Your task to perform on an android device: What's the weather today? Image 0: 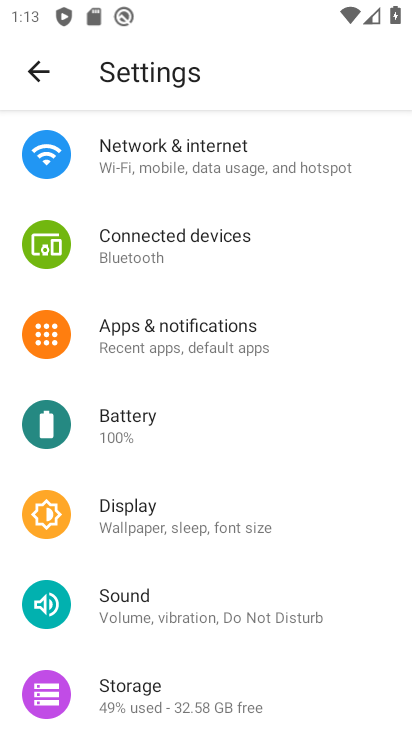
Step 0: press back button
Your task to perform on an android device: What's the weather today? Image 1: 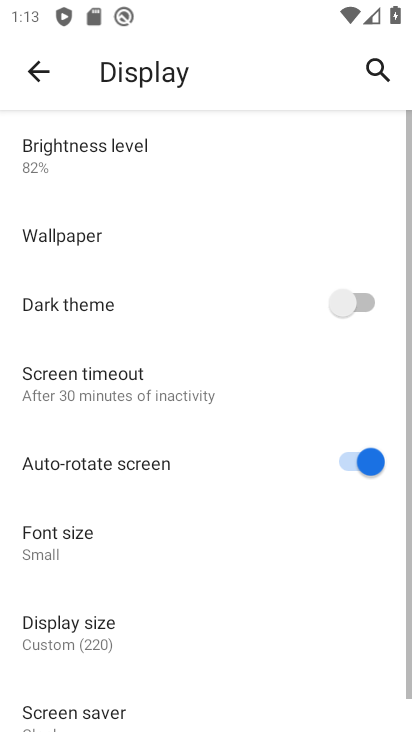
Step 1: press back button
Your task to perform on an android device: What's the weather today? Image 2: 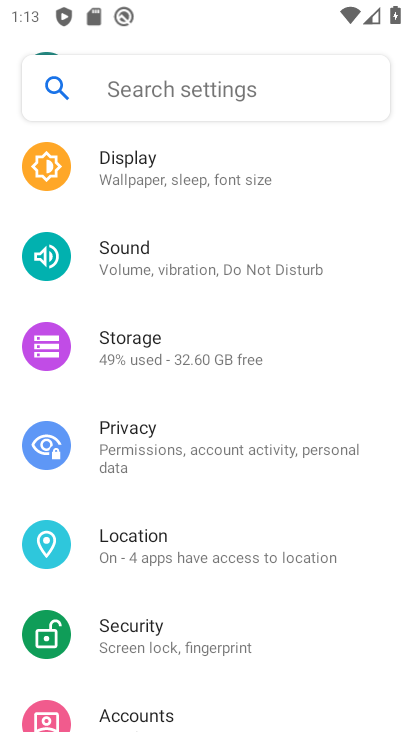
Step 2: press back button
Your task to perform on an android device: What's the weather today? Image 3: 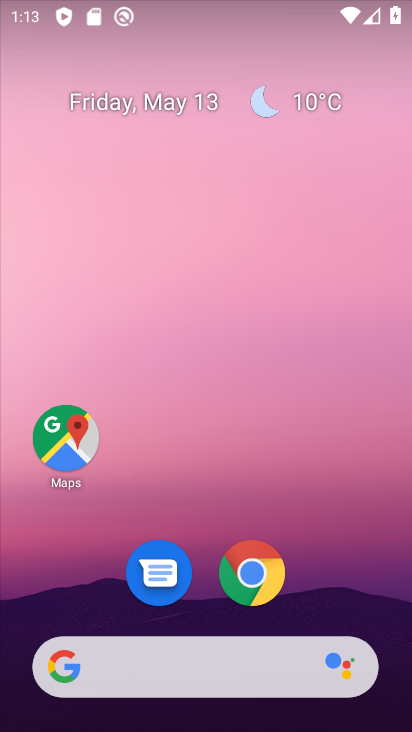
Step 3: drag from (355, 585) to (283, 86)
Your task to perform on an android device: What's the weather today? Image 4: 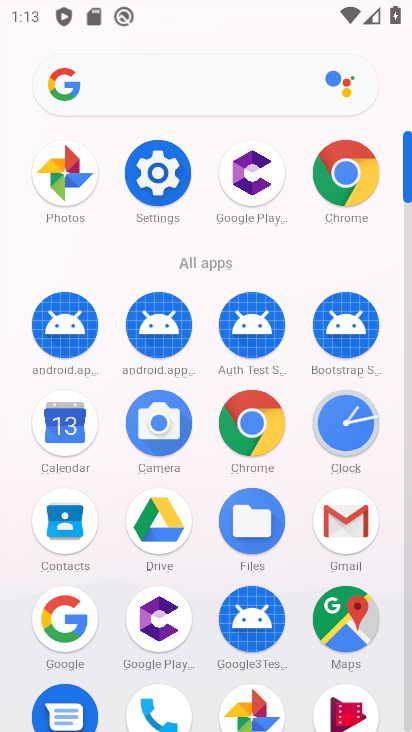
Step 4: click (348, 168)
Your task to perform on an android device: What's the weather today? Image 5: 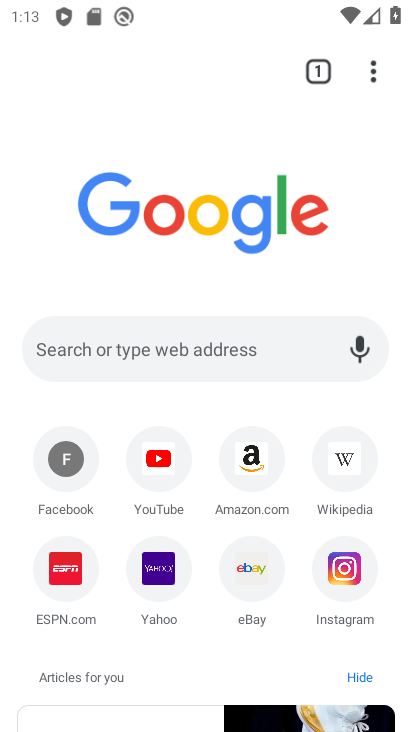
Step 5: click (178, 338)
Your task to perform on an android device: What's the weather today? Image 6: 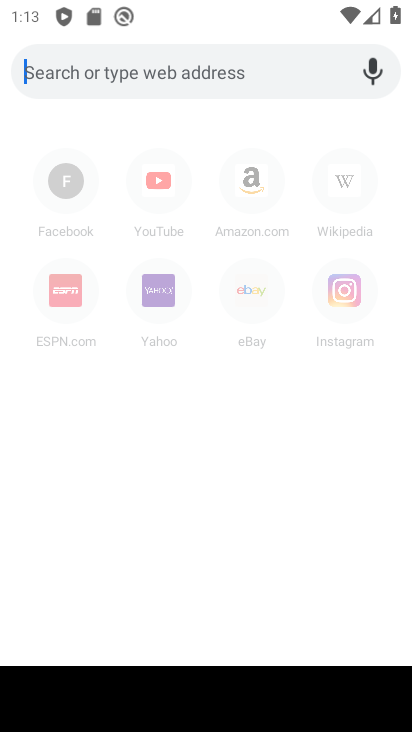
Step 6: type "What's the weather today?"
Your task to perform on an android device: What's the weather today? Image 7: 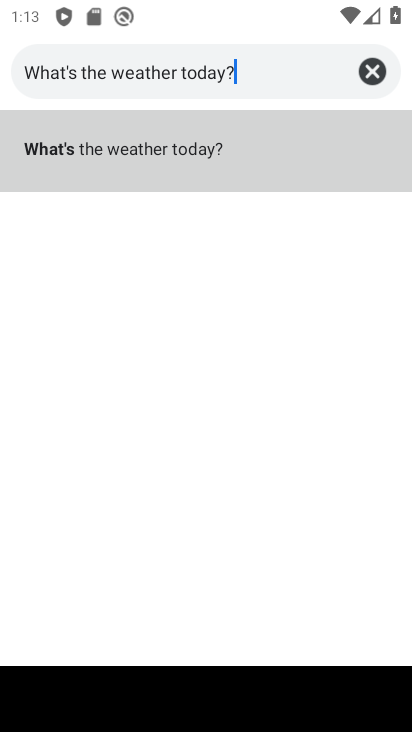
Step 7: type ""
Your task to perform on an android device: What's the weather today? Image 8: 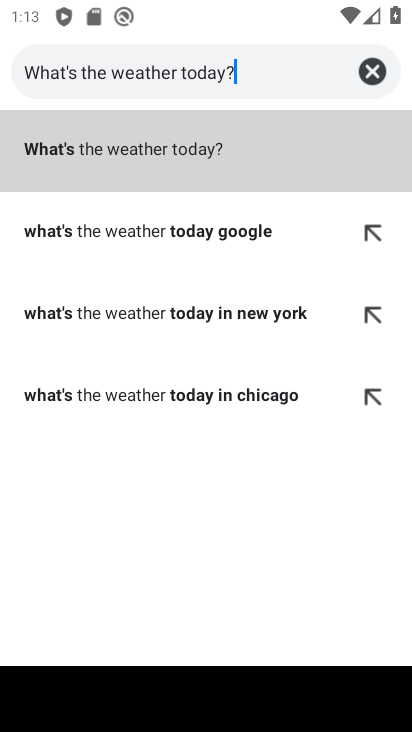
Step 8: click (163, 164)
Your task to perform on an android device: What's the weather today? Image 9: 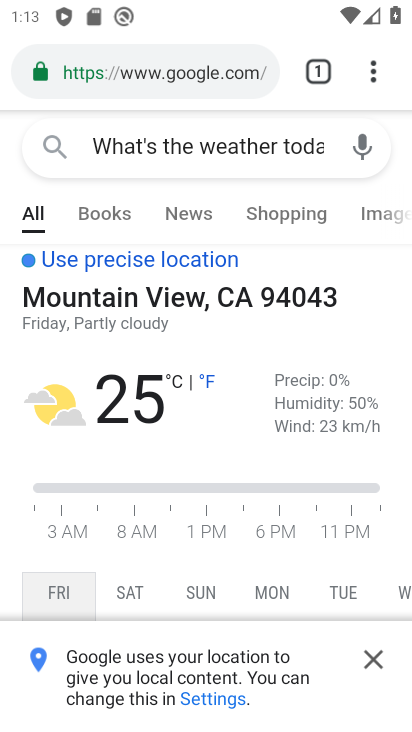
Step 9: task complete